Your task to perform on an android device: change the clock display to digital Image 0: 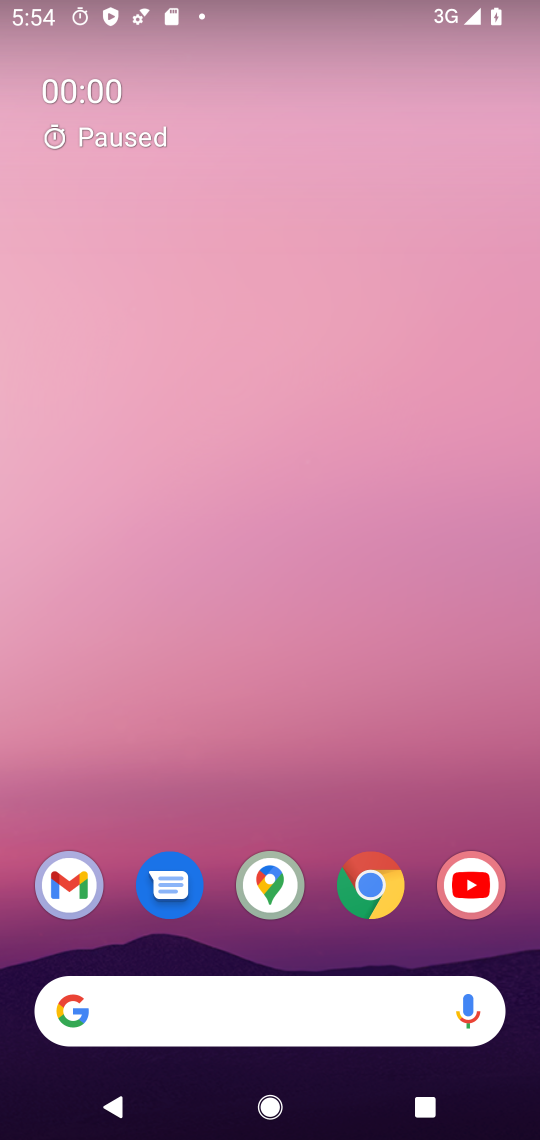
Step 0: drag from (422, 947) to (133, 42)
Your task to perform on an android device: change the clock display to digital Image 1: 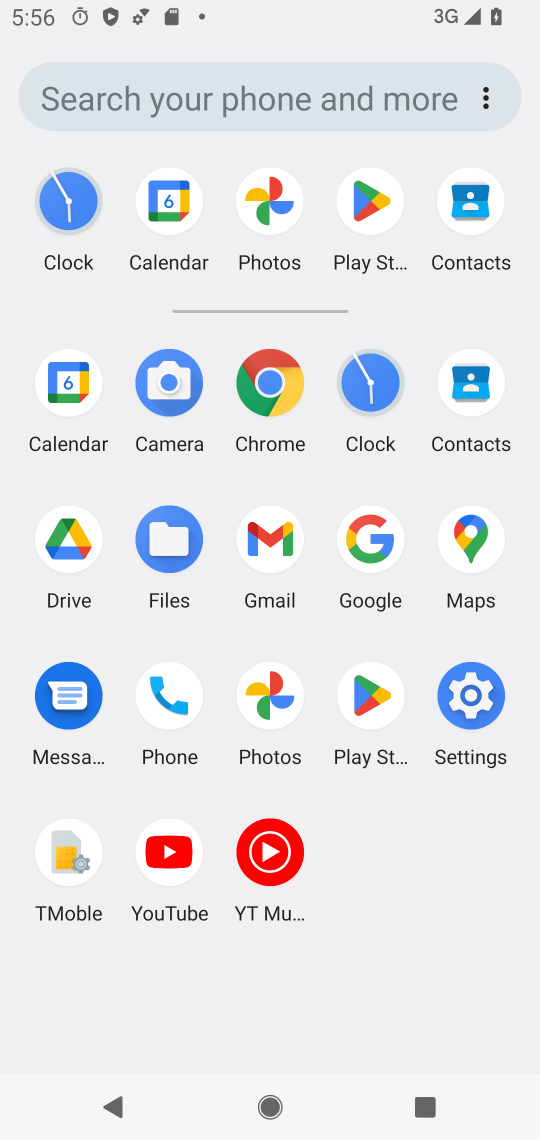
Step 1: click (391, 399)
Your task to perform on an android device: change the clock display to digital Image 2: 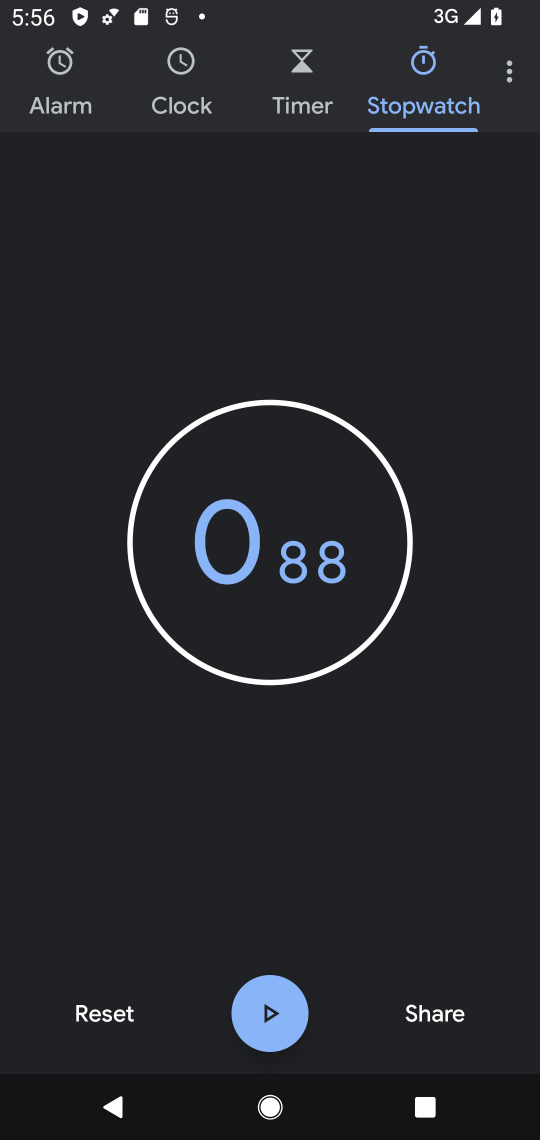
Step 2: click (513, 75)
Your task to perform on an android device: change the clock display to digital Image 3: 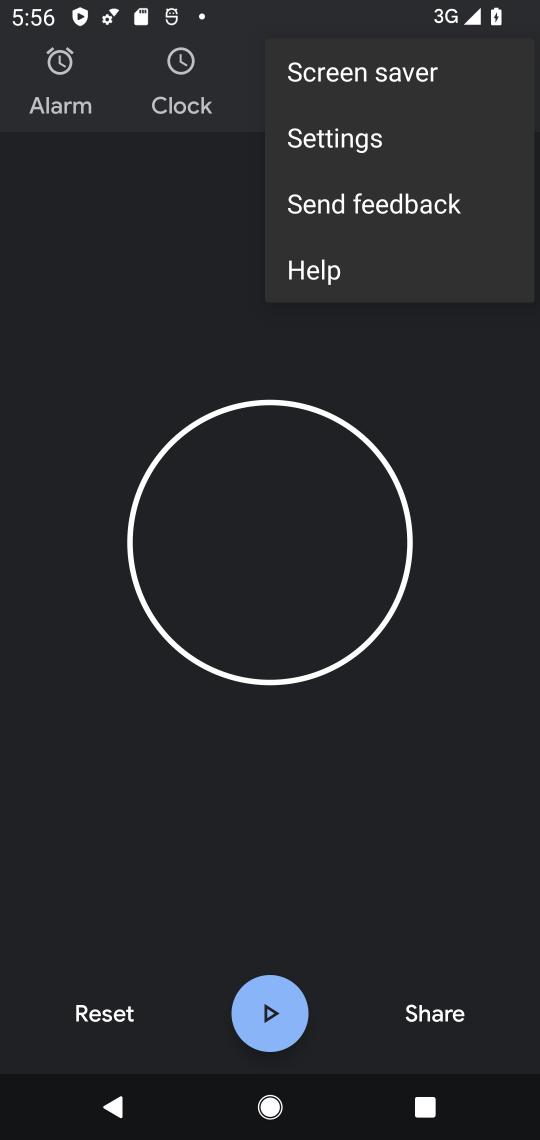
Step 3: click (305, 151)
Your task to perform on an android device: change the clock display to digital Image 4: 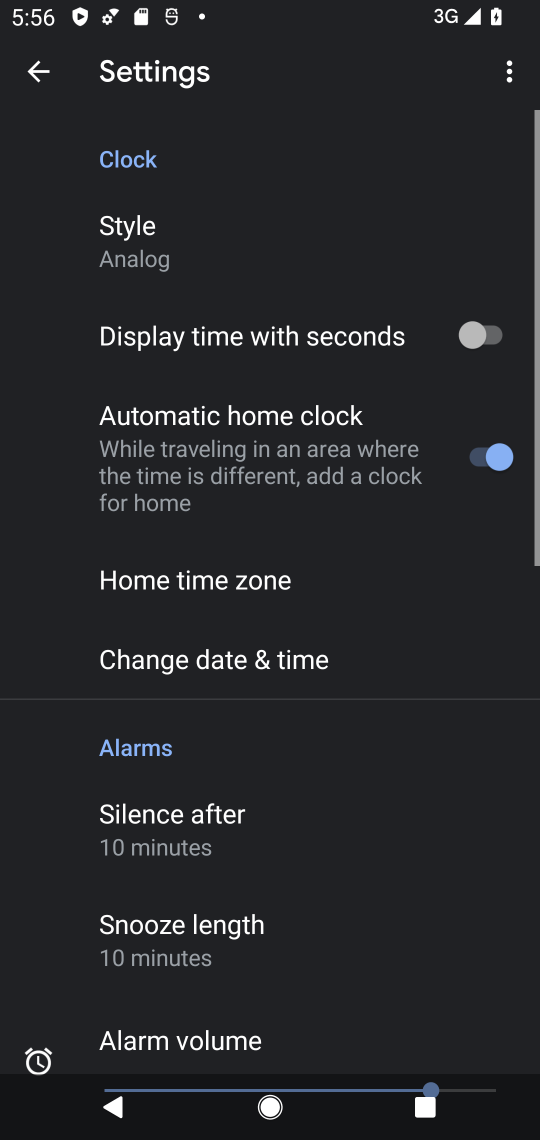
Step 4: click (209, 230)
Your task to perform on an android device: change the clock display to digital Image 5: 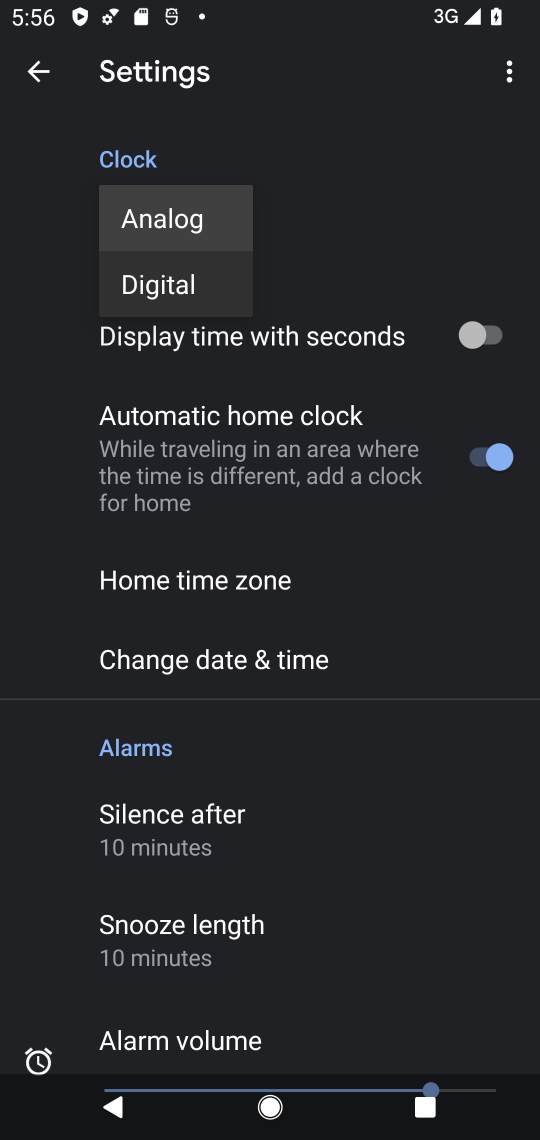
Step 5: click (185, 293)
Your task to perform on an android device: change the clock display to digital Image 6: 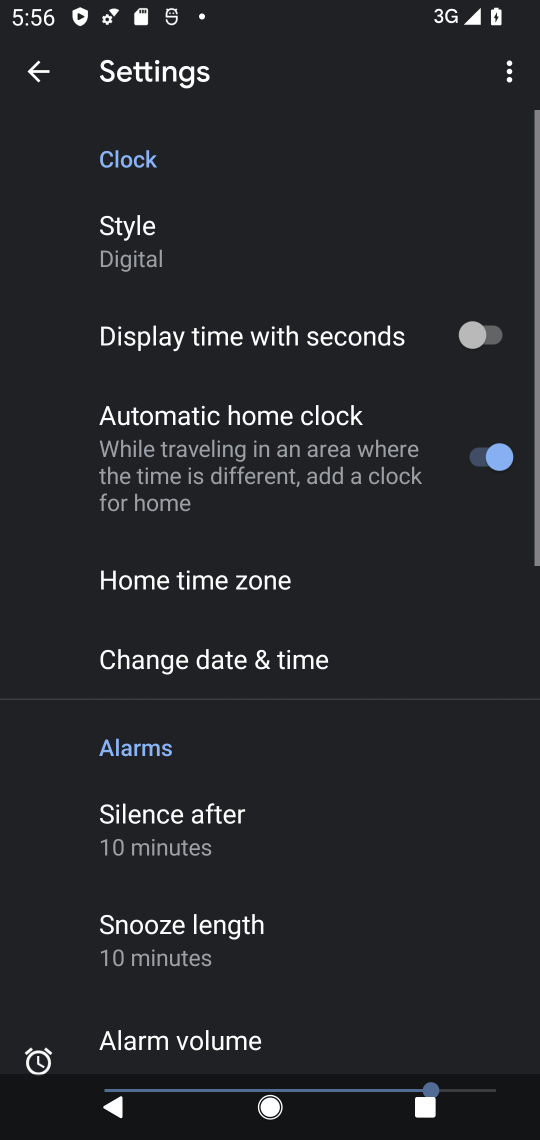
Step 6: task complete